Your task to perform on an android device: Open settings Image 0: 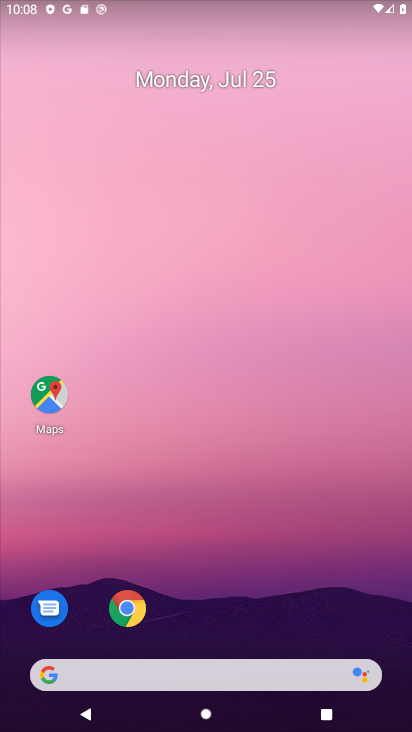
Step 0: drag from (211, 581) to (263, 182)
Your task to perform on an android device: Open settings Image 1: 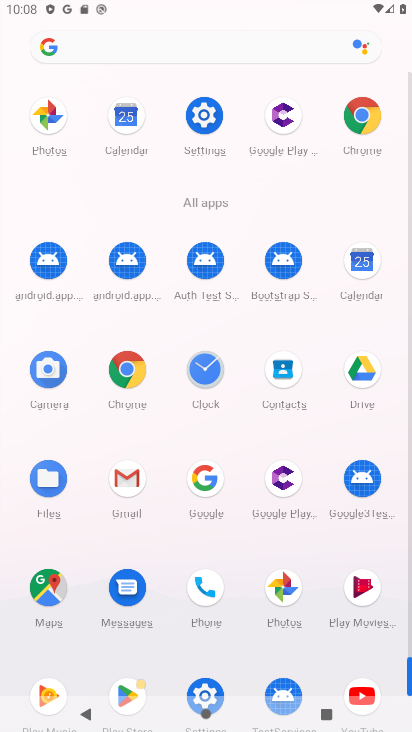
Step 1: click (206, 97)
Your task to perform on an android device: Open settings Image 2: 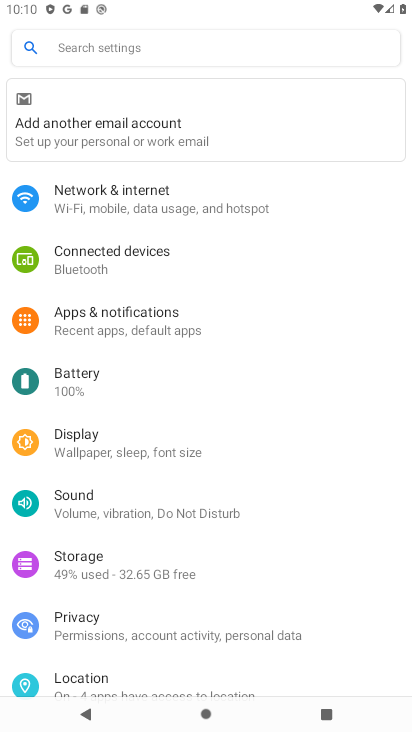
Step 2: task complete